Your task to perform on an android device: Add "usb-a to usb-b" to the cart on newegg Image 0: 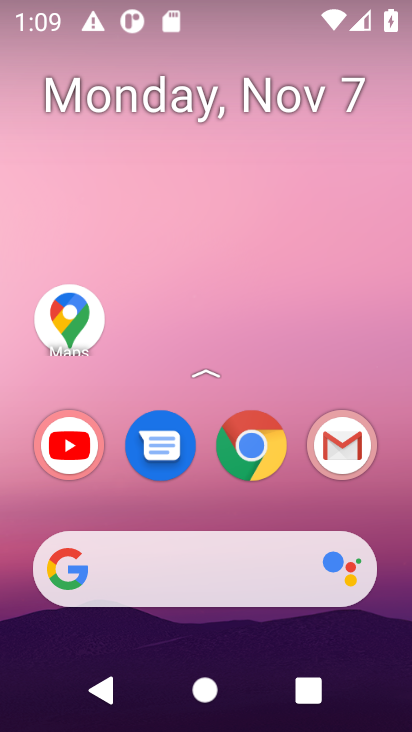
Step 0: click (255, 451)
Your task to perform on an android device: Add "usb-a to usb-b" to the cart on newegg Image 1: 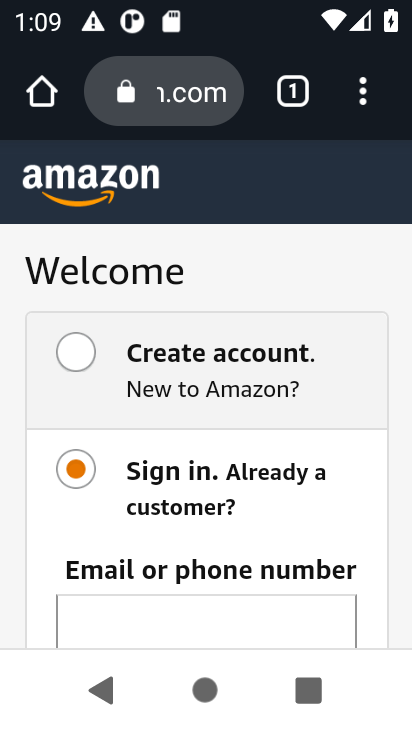
Step 1: click (179, 76)
Your task to perform on an android device: Add "usb-a to usb-b" to the cart on newegg Image 2: 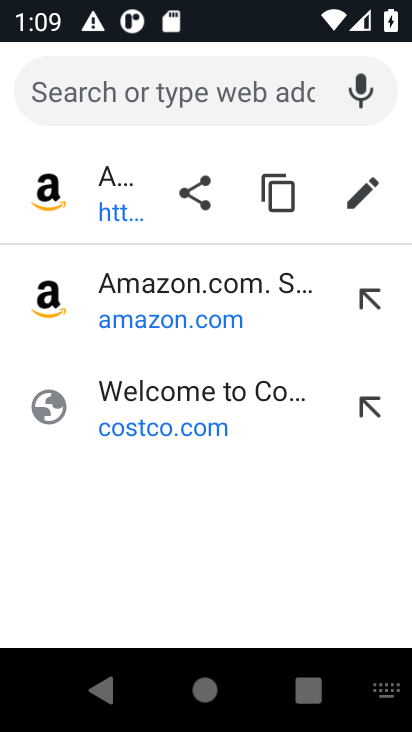
Step 2: type "newegg"
Your task to perform on an android device: Add "usb-a to usb-b" to the cart on newegg Image 3: 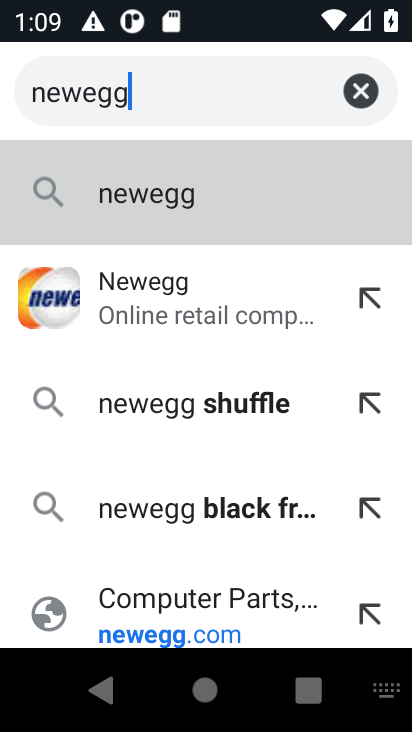
Step 3: click (162, 198)
Your task to perform on an android device: Add "usb-a to usb-b" to the cart on newegg Image 4: 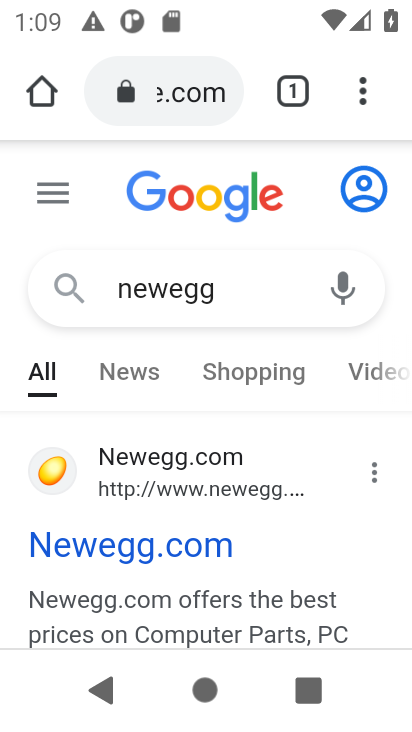
Step 4: click (205, 460)
Your task to perform on an android device: Add "usb-a to usb-b" to the cart on newegg Image 5: 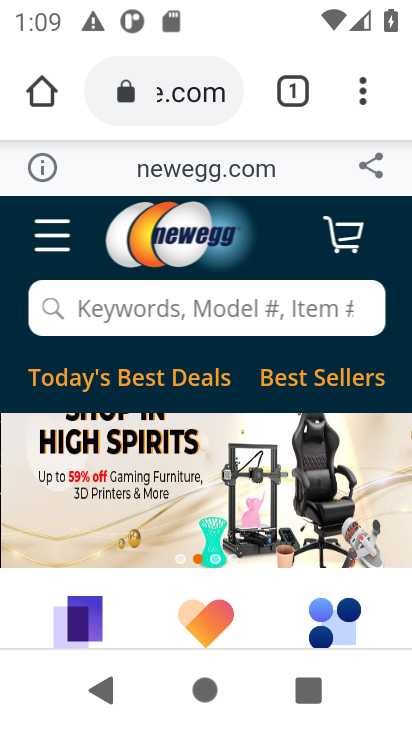
Step 5: click (244, 299)
Your task to perform on an android device: Add "usb-a to usb-b" to the cart on newegg Image 6: 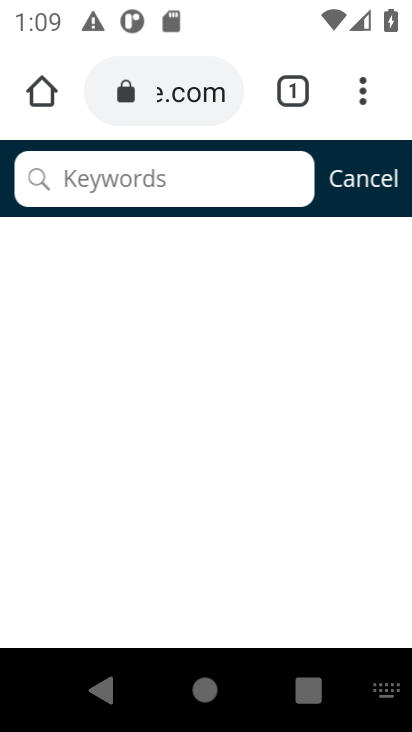
Step 6: type "usb-a to usb-b"
Your task to perform on an android device: Add "usb-a to usb-b" to the cart on newegg Image 7: 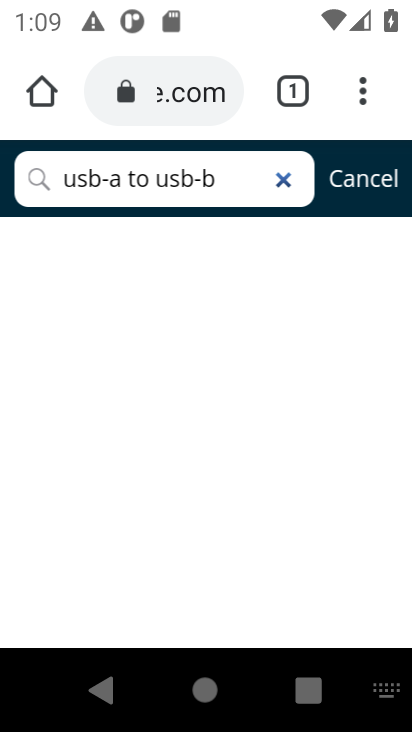
Step 7: click (259, 334)
Your task to perform on an android device: Add "usb-a to usb-b" to the cart on newegg Image 8: 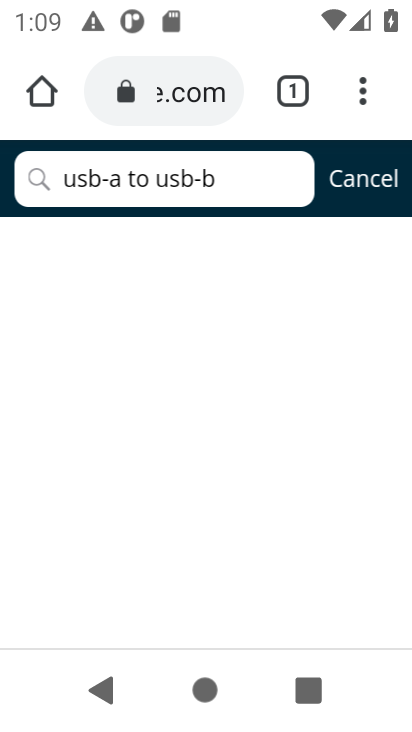
Step 8: task complete